Your task to perform on an android device: Open eBay Image 0: 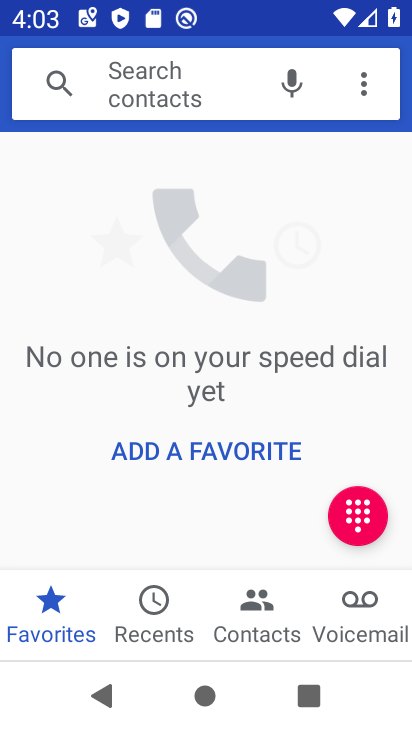
Step 0: press home button
Your task to perform on an android device: Open eBay Image 1: 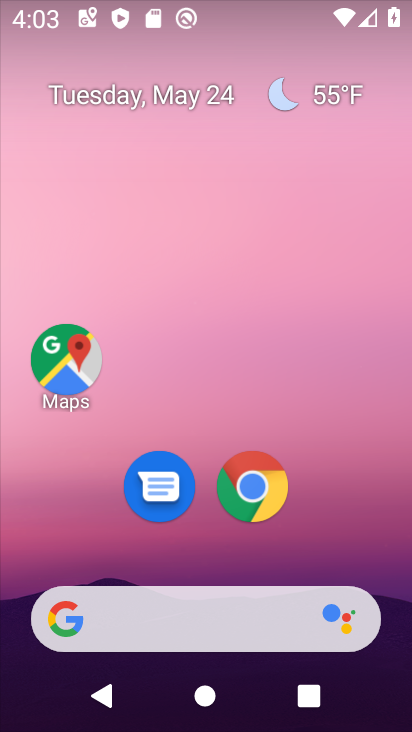
Step 1: click (269, 502)
Your task to perform on an android device: Open eBay Image 2: 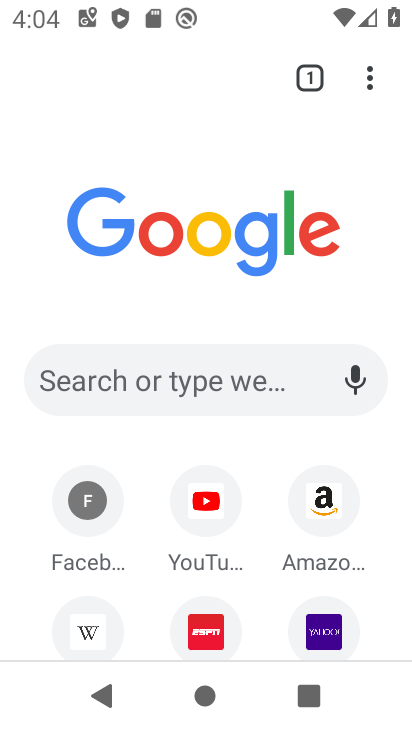
Step 2: drag from (250, 584) to (250, 477)
Your task to perform on an android device: Open eBay Image 3: 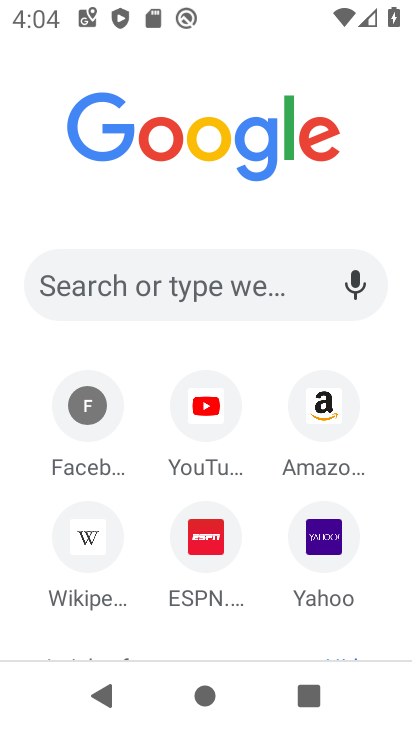
Step 3: click (223, 288)
Your task to perform on an android device: Open eBay Image 4: 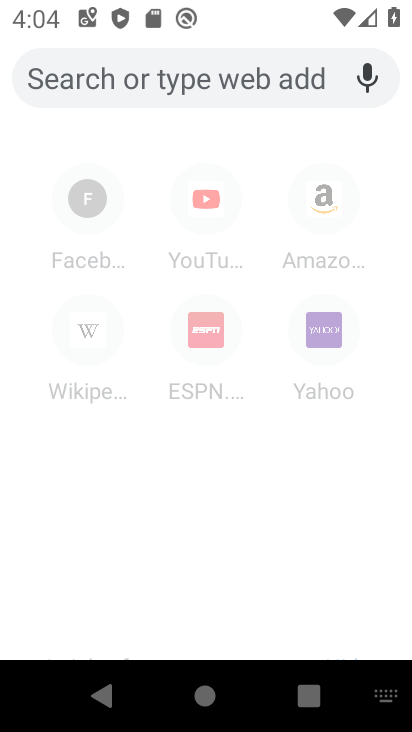
Step 4: type "ebay.com"
Your task to perform on an android device: Open eBay Image 5: 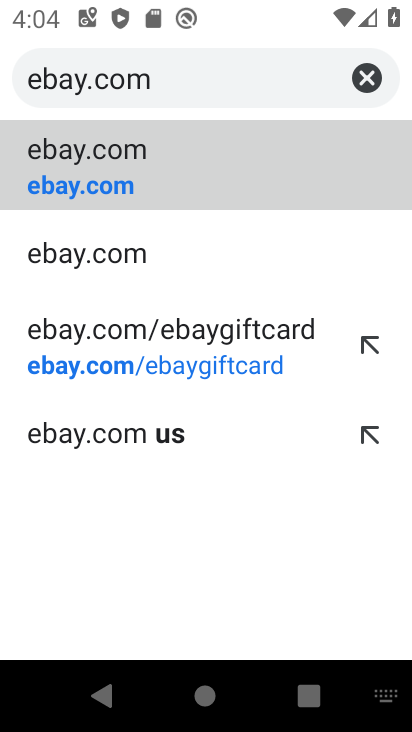
Step 5: click (188, 147)
Your task to perform on an android device: Open eBay Image 6: 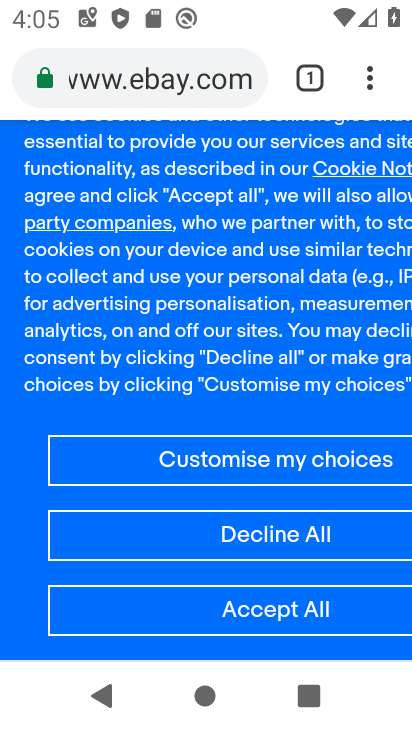
Step 6: task complete